Your task to perform on an android device: Open Yahoo.com Image 0: 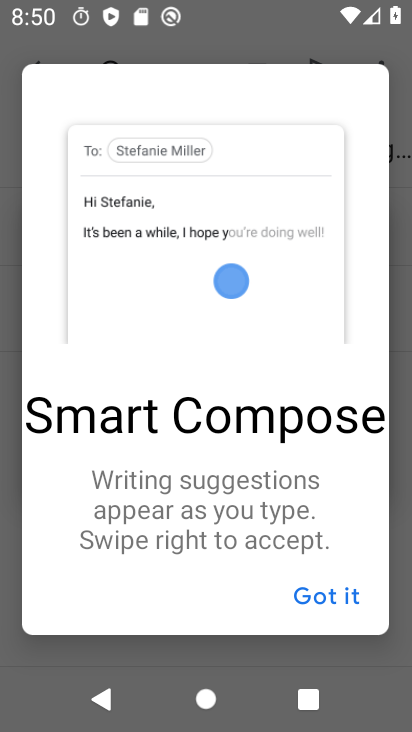
Step 0: press home button
Your task to perform on an android device: Open Yahoo.com Image 1: 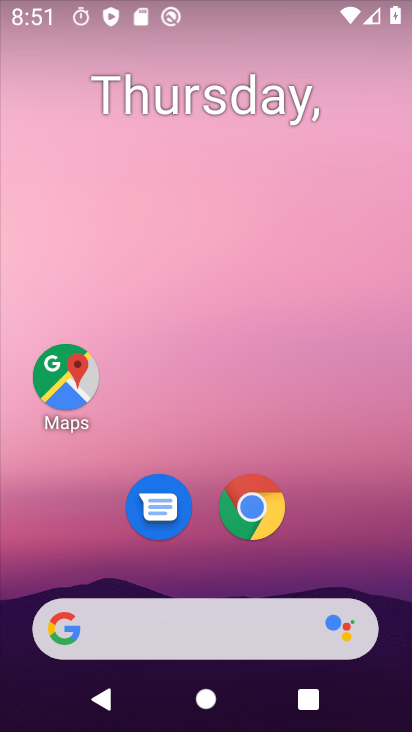
Step 1: drag from (190, 564) to (275, 39)
Your task to perform on an android device: Open Yahoo.com Image 2: 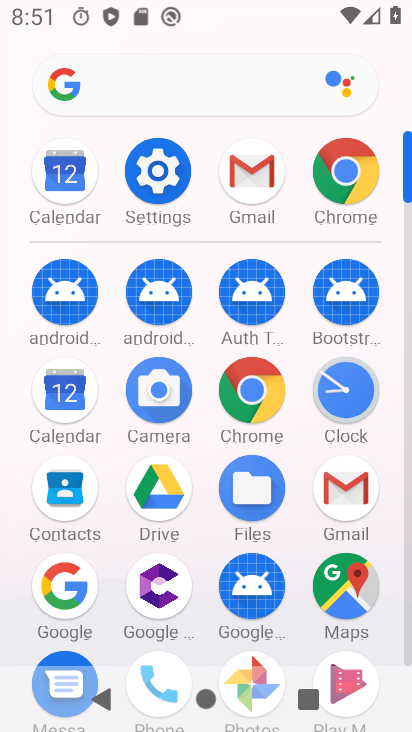
Step 2: click (351, 197)
Your task to perform on an android device: Open Yahoo.com Image 3: 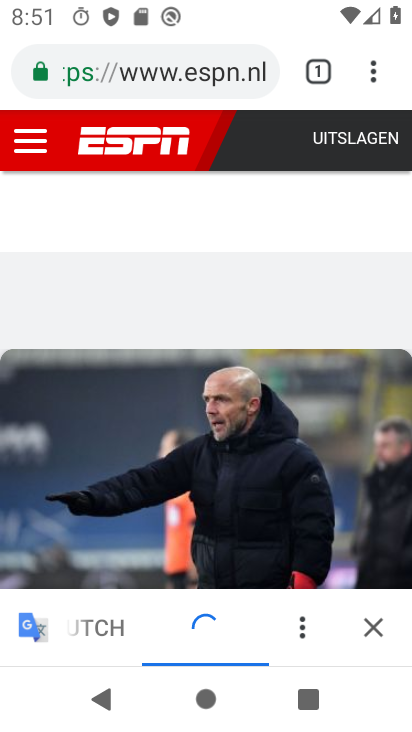
Step 3: click (174, 59)
Your task to perform on an android device: Open Yahoo.com Image 4: 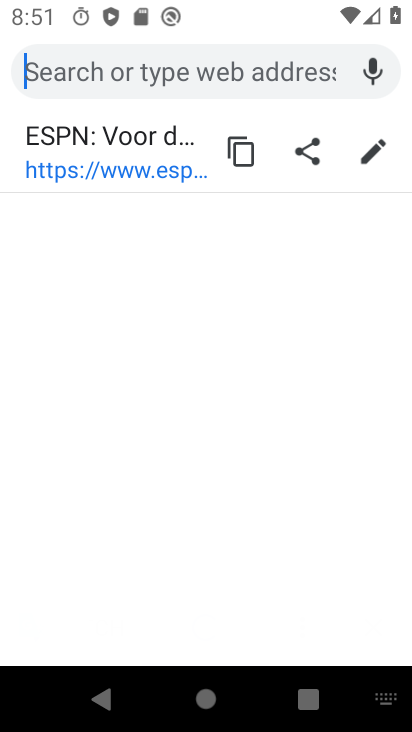
Step 4: type "yahoo.com"
Your task to perform on an android device: Open Yahoo.com Image 5: 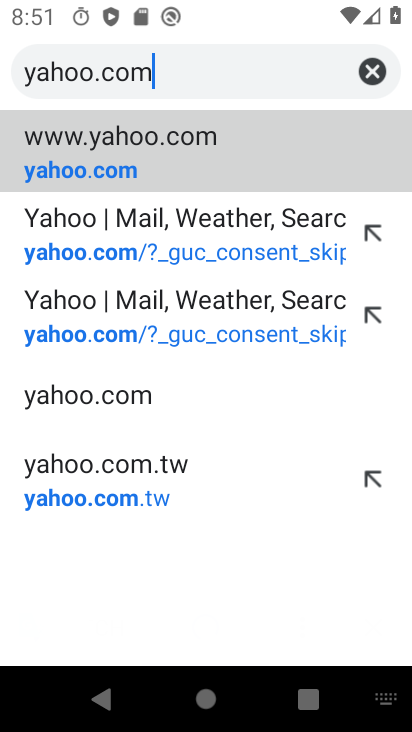
Step 5: click (88, 157)
Your task to perform on an android device: Open Yahoo.com Image 6: 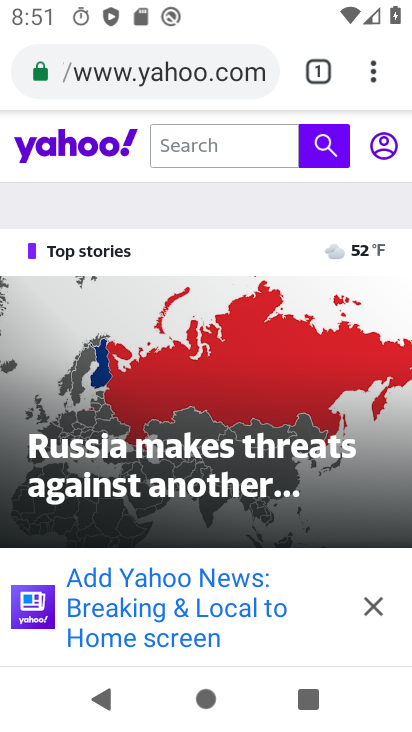
Step 6: task complete